Your task to perform on an android device: Do I have any events today? Image 0: 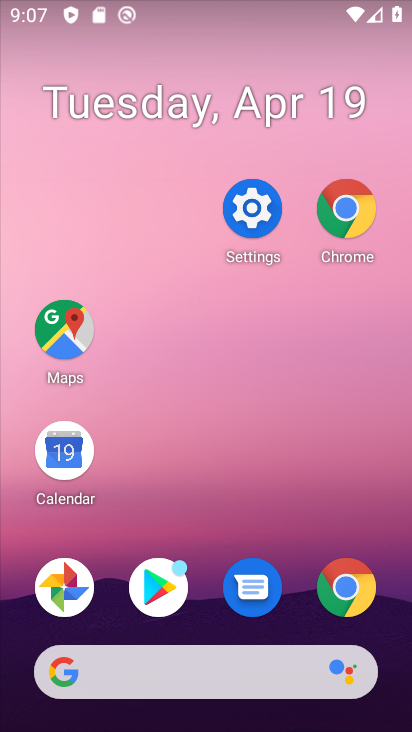
Step 0: drag from (169, 284) to (149, 211)
Your task to perform on an android device: Do I have any events today? Image 1: 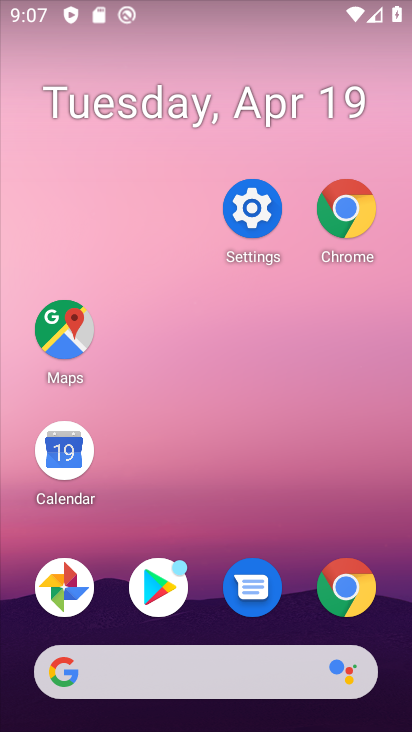
Step 1: drag from (226, 474) to (174, 254)
Your task to perform on an android device: Do I have any events today? Image 2: 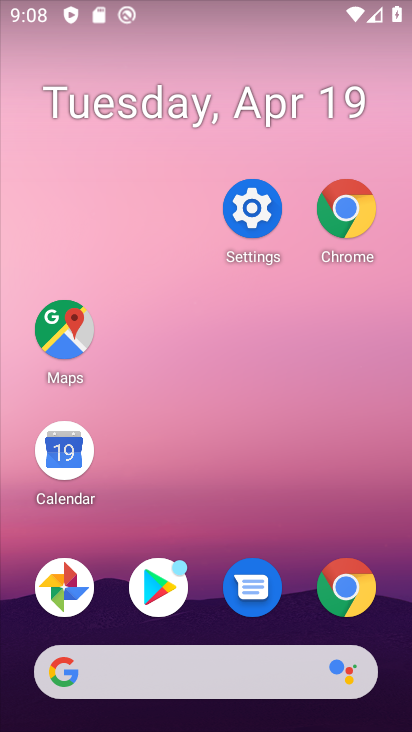
Step 2: drag from (29, 240) to (302, 267)
Your task to perform on an android device: Do I have any events today? Image 3: 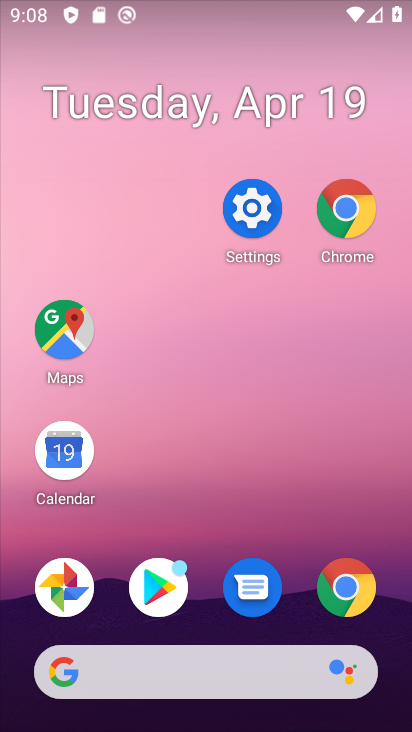
Step 3: drag from (10, 312) to (394, 439)
Your task to perform on an android device: Do I have any events today? Image 4: 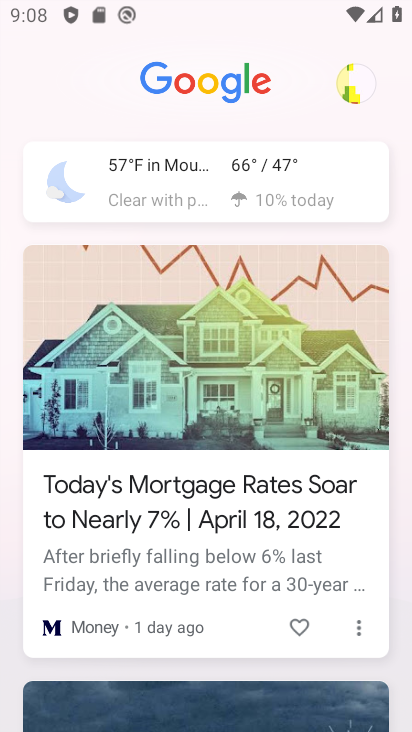
Step 4: drag from (380, 477) to (70, 506)
Your task to perform on an android device: Do I have any events today? Image 5: 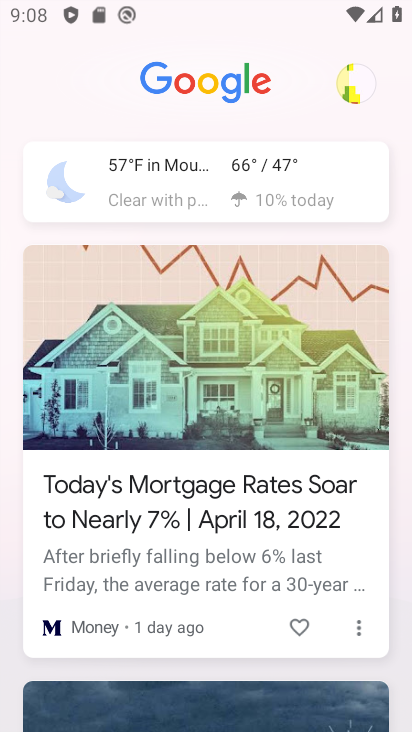
Step 5: click (38, 517)
Your task to perform on an android device: Do I have any events today? Image 6: 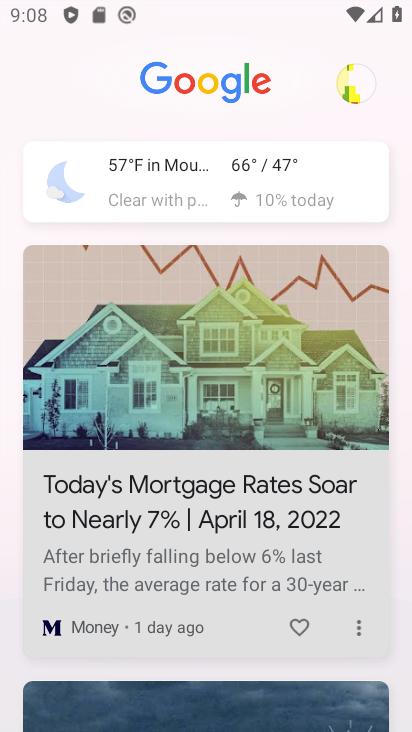
Step 6: drag from (362, 522) to (10, 468)
Your task to perform on an android device: Do I have any events today? Image 7: 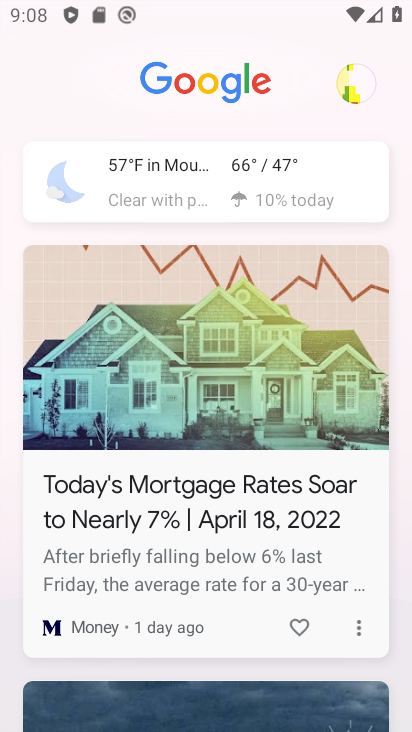
Step 7: drag from (24, 430) to (79, 437)
Your task to perform on an android device: Do I have any events today? Image 8: 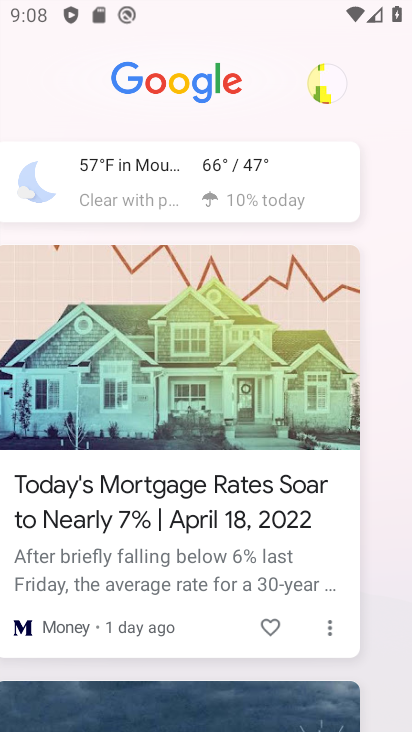
Step 8: drag from (37, 481) to (11, 458)
Your task to perform on an android device: Do I have any events today? Image 9: 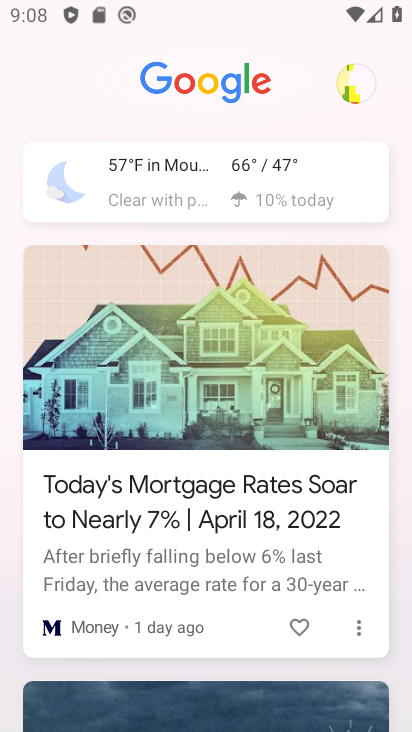
Step 9: drag from (369, 466) to (117, 443)
Your task to perform on an android device: Do I have any events today? Image 10: 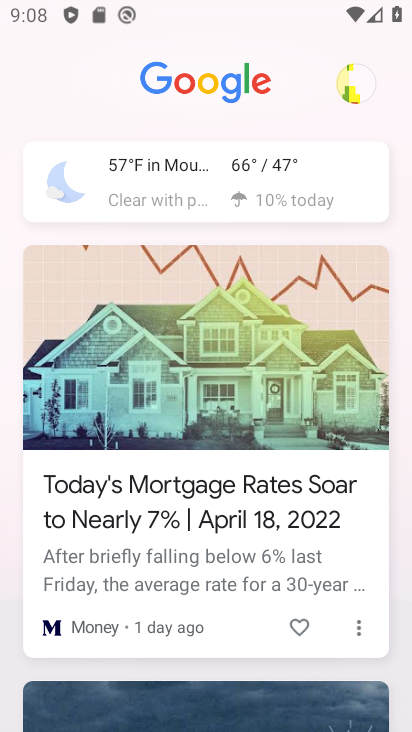
Step 10: drag from (374, 403) to (129, 433)
Your task to perform on an android device: Do I have any events today? Image 11: 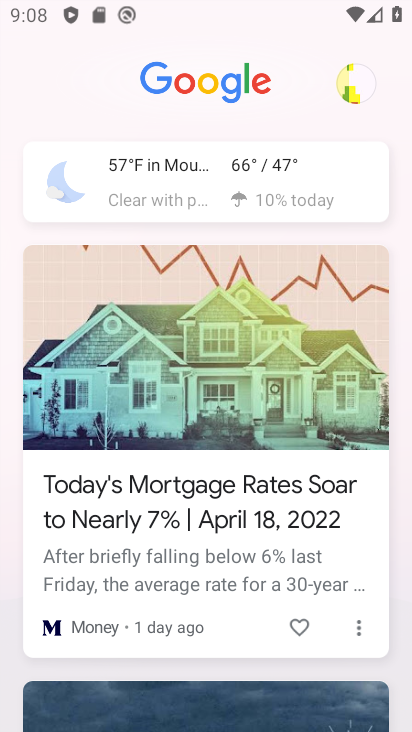
Step 11: drag from (329, 443) to (164, 472)
Your task to perform on an android device: Do I have any events today? Image 12: 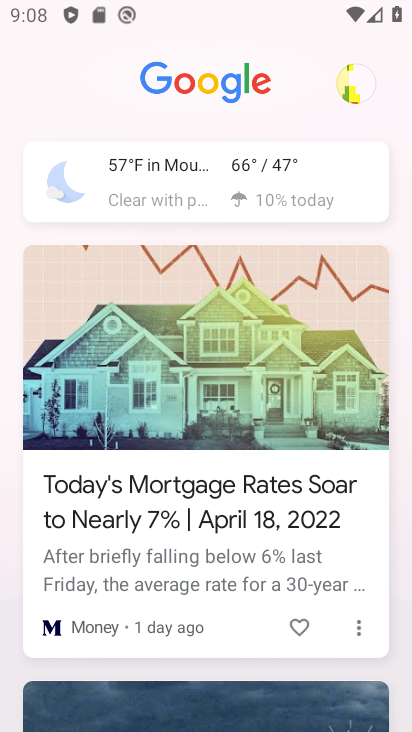
Step 12: drag from (360, 497) to (60, 562)
Your task to perform on an android device: Do I have any events today? Image 13: 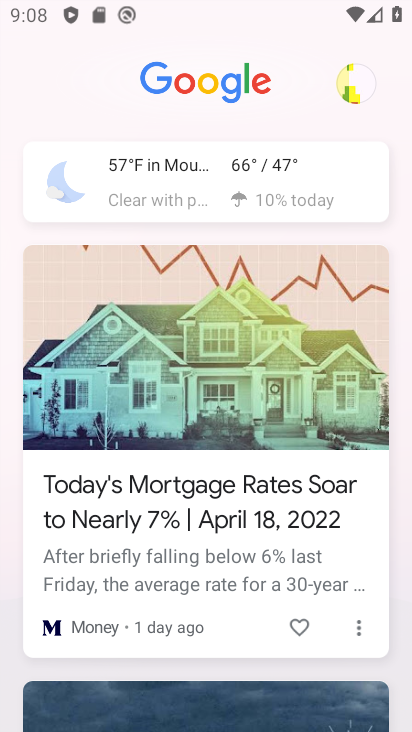
Step 13: click (404, 590)
Your task to perform on an android device: Do I have any events today? Image 14: 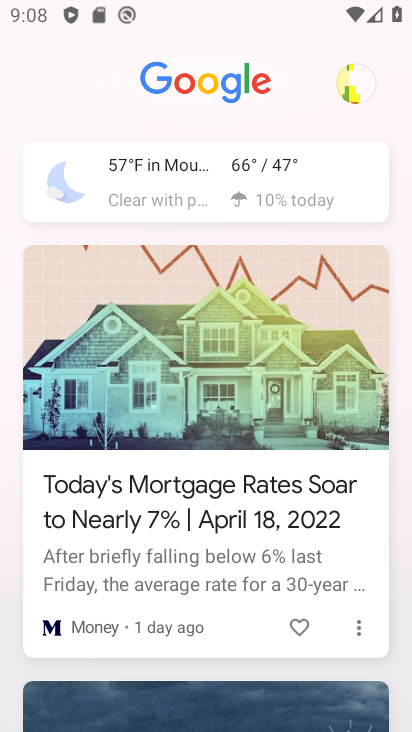
Step 14: drag from (402, 596) to (411, 538)
Your task to perform on an android device: Do I have any events today? Image 15: 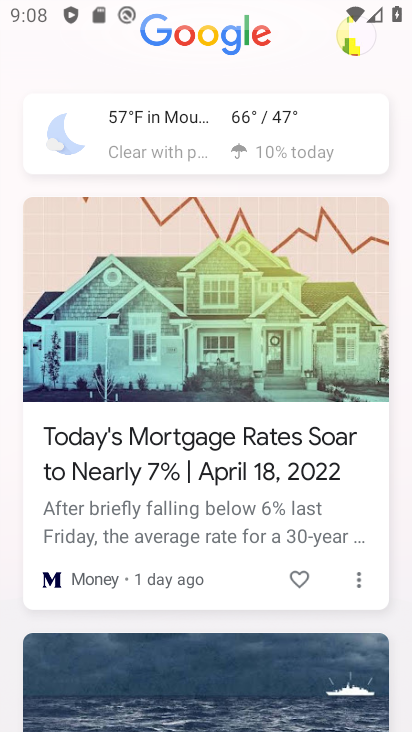
Step 15: press home button
Your task to perform on an android device: Do I have any events today? Image 16: 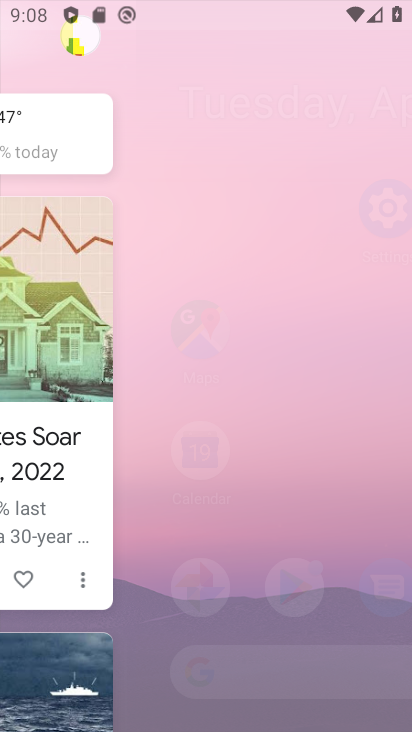
Step 16: drag from (411, 538) to (409, 234)
Your task to perform on an android device: Do I have any events today? Image 17: 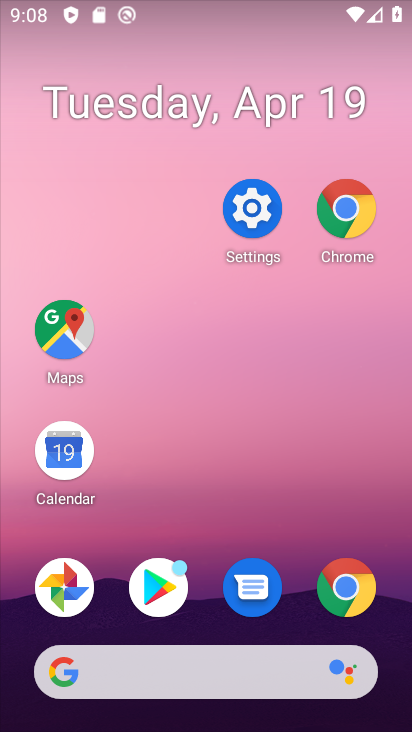
Step 17: click (173, 36)
Your task to perform on an android device: Do I have any events today? Image 18: 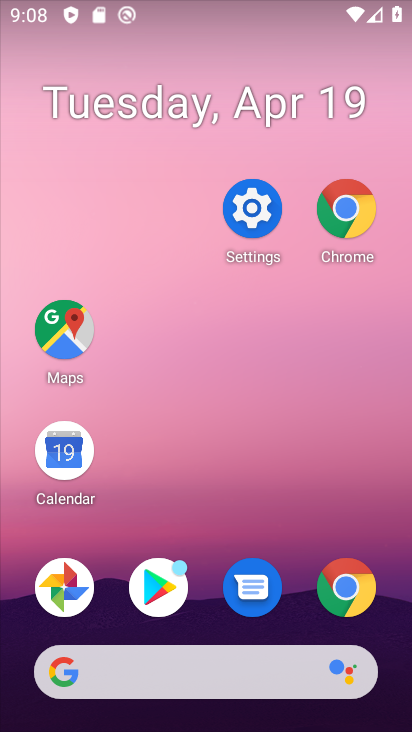
Step 18: drag from (222, 435) to (127, 103)
Your task to perform on an android device: Do I have any events today? Image 19: 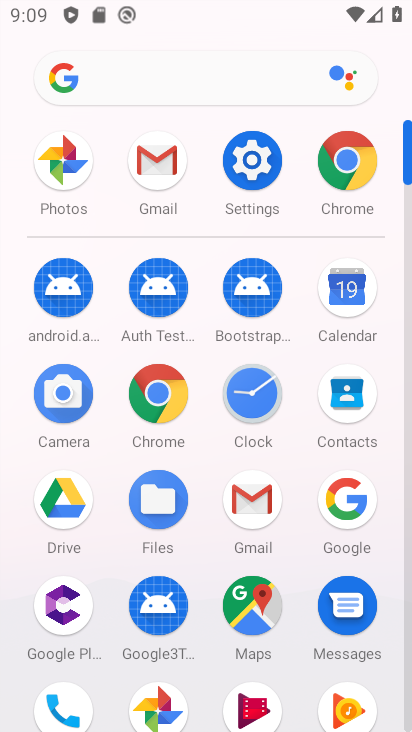
Step 19: click (334, 288)
Your task to perform on an android device: Do I have any events today? Image 20: 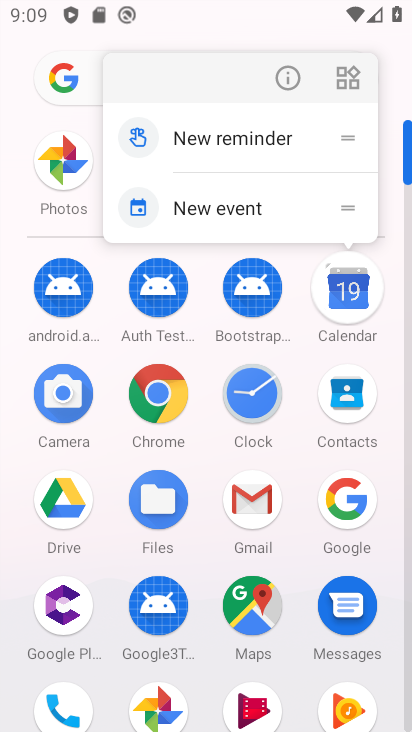
Step 20: click (339, 290)
Your task to perform on an android device: Do I have any events today? Image 21: 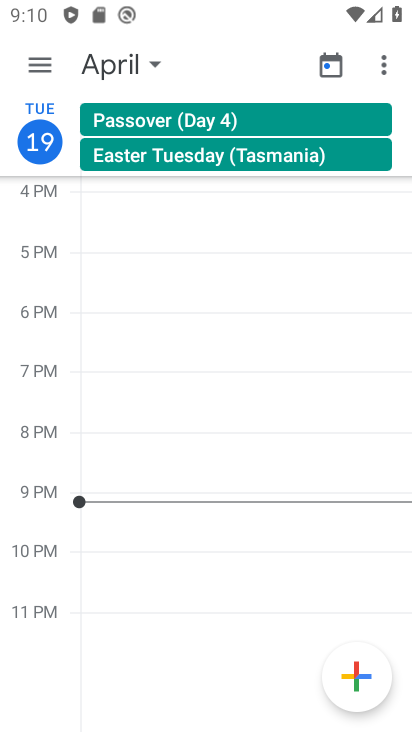
Step 21: press home button
Your task to perform on an android device: Do I have any events today? Image 22: 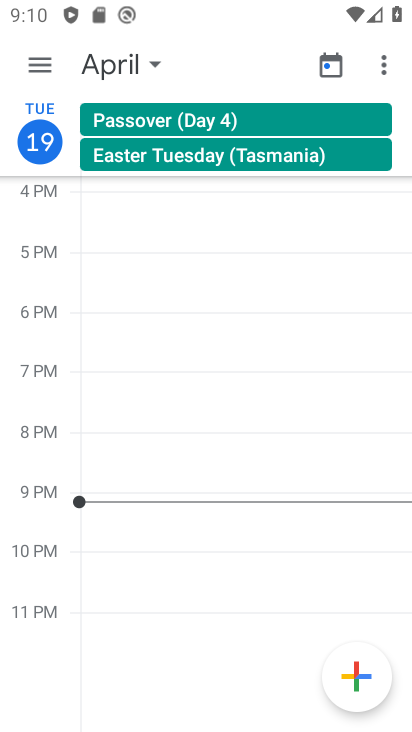
Step 22: press home button
Your task to perform on an android device: Do I have any events today? Image 23: 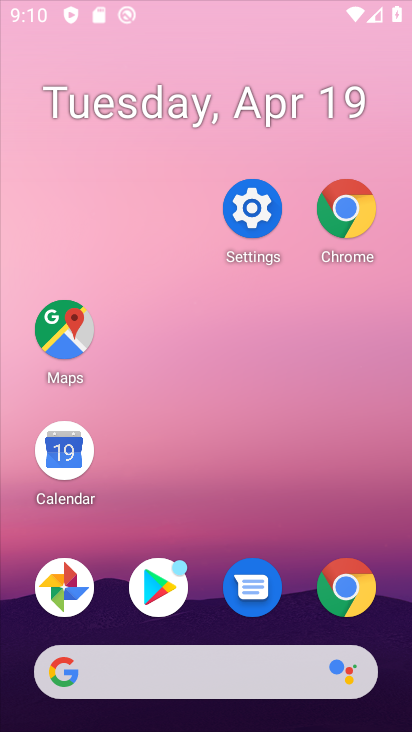
Step 23: press home button
Your task to perform on an android device: Do I have any events today? Image 24: 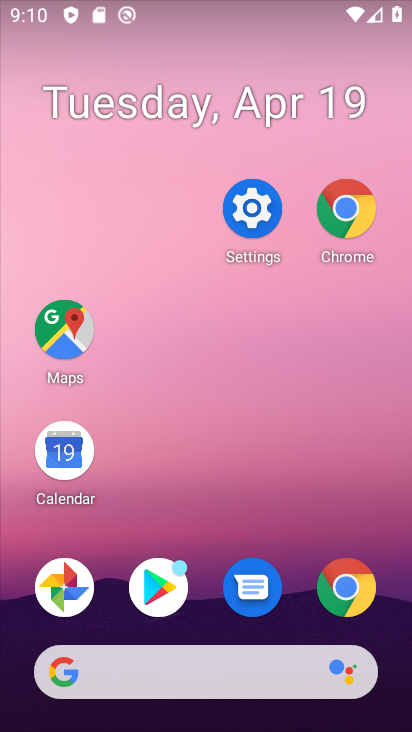
Step 24: drag from (261, 533) to (160, 161)
Your task to perform on an android device: Do I have any events today? Image 25: 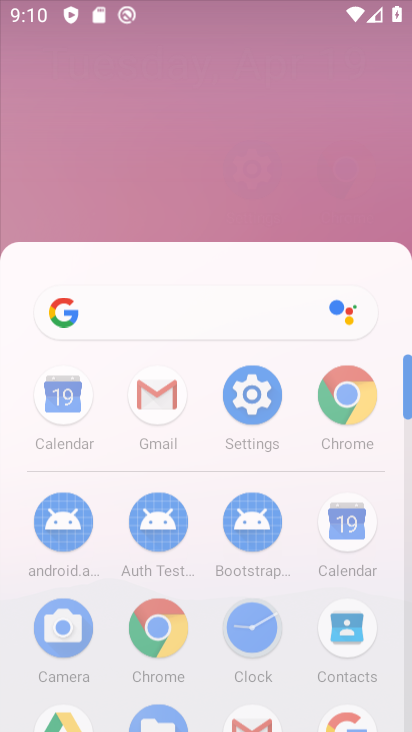
Step 25: drag from (360, 432) to (202, 139)
Your task to perform on an android device: Do I have any events today? Image 26: 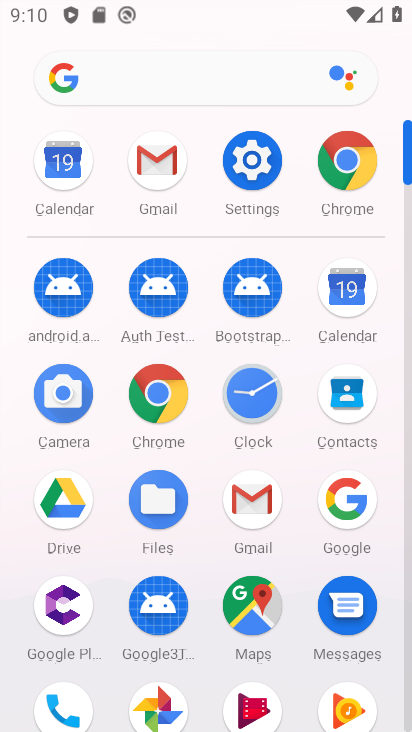
Step 26: click (362, 295)
Your task to perform on an android device: Do I have any events today? Image 27: 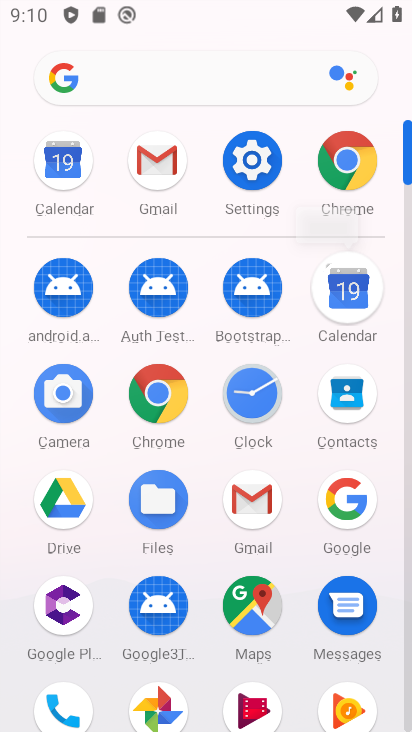
Step 27: click (362, 295)
Your task to perform on an android device: Do I have any events today? Image 28: 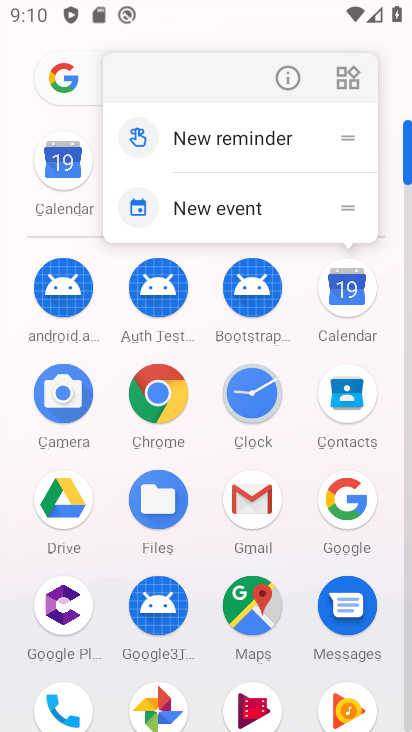
Step 28: click (362, 295)
Your task to perform on an android device: Do I have any events today? Image 29: 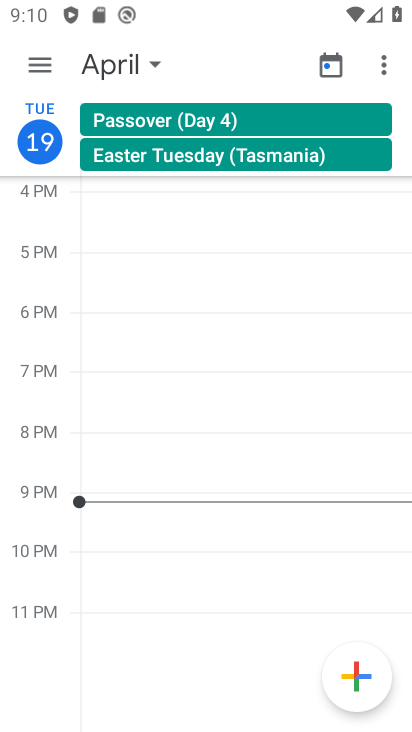
Step 29: drag from (147, 172) to (172, 533)
Your task to perform on an android device: Do I have any events today? Image 30: 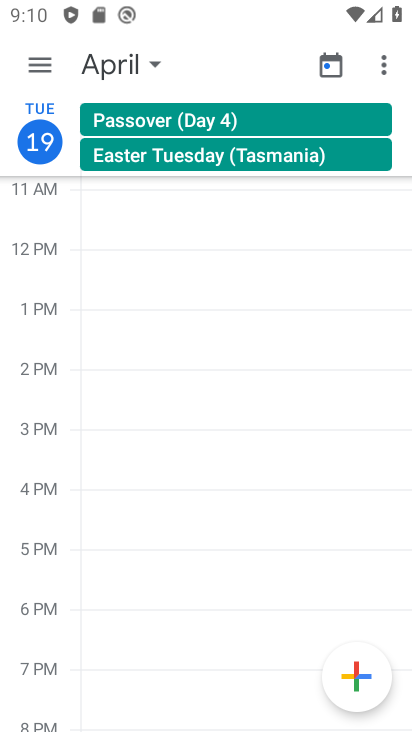
Step 30: drag from (148, 333) to (177, 484)
Your task to perform on an android device: Do I have any events today? Image 31: 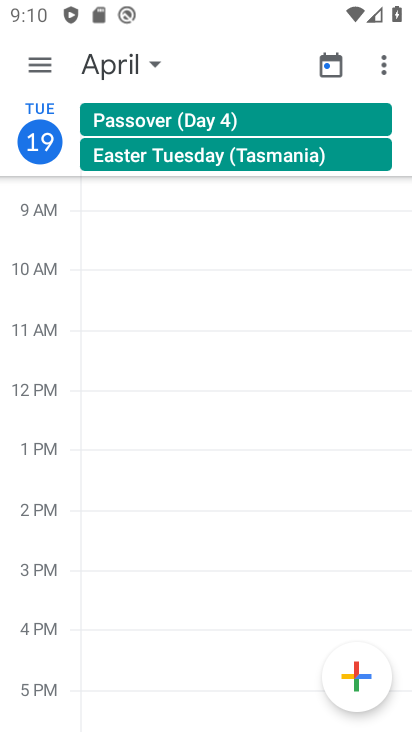
Step 31: click (138, 115)
Your task to perform on an android device: Do I have any events today? Image 32: 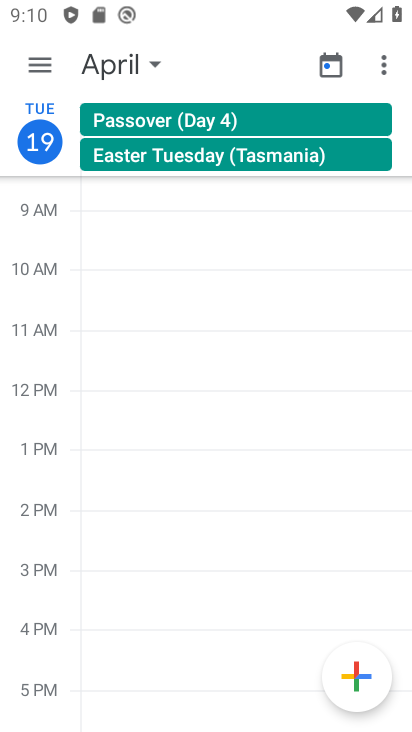
Step 32: click (153, 151)
Your task to perform on an android device: Do I have any events today? Image 33: 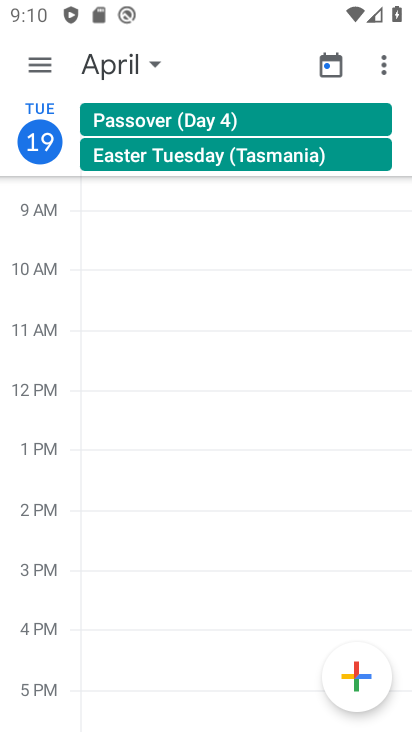
Step 33: click (152, 57)
Your task to perform on an android device: Do I have any events today? Image 34: 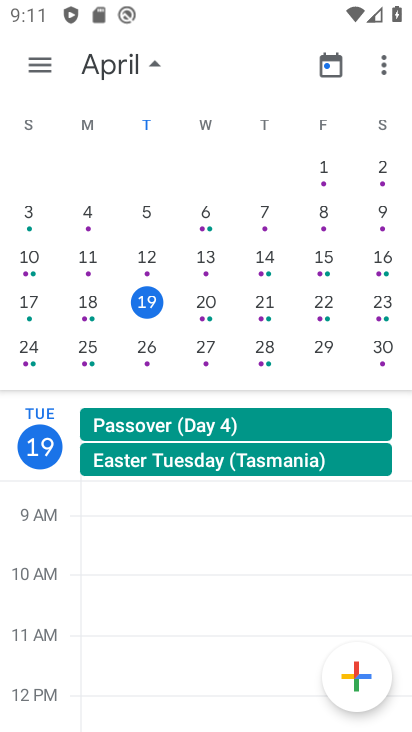
Step 34: task complete